Your task to perform on an android device: toggle data saver in the chrome app Image 0: 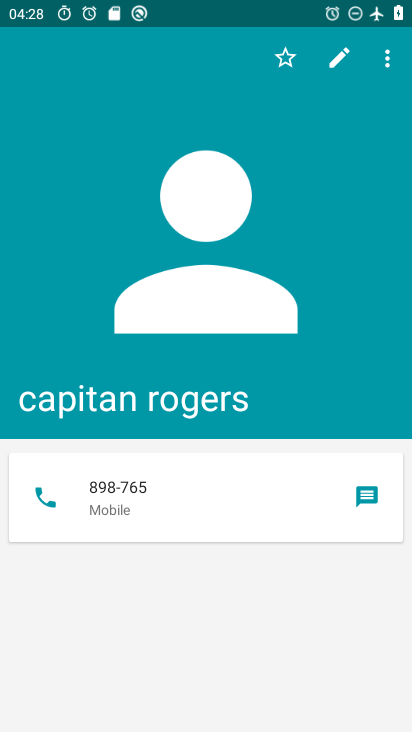
Step 0: press home button
Your task to perform on an android device: toggle data saver in the chrome app Image 1: 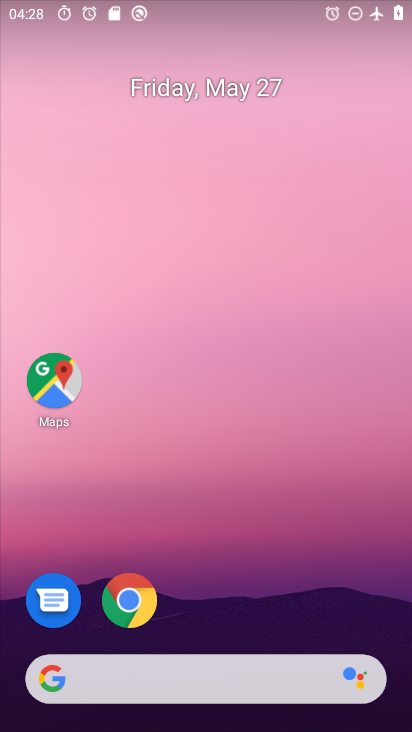
Step 1: click (131, 602)
Your task to perform on an android device: toggle data saver in the chrome app Image 2: 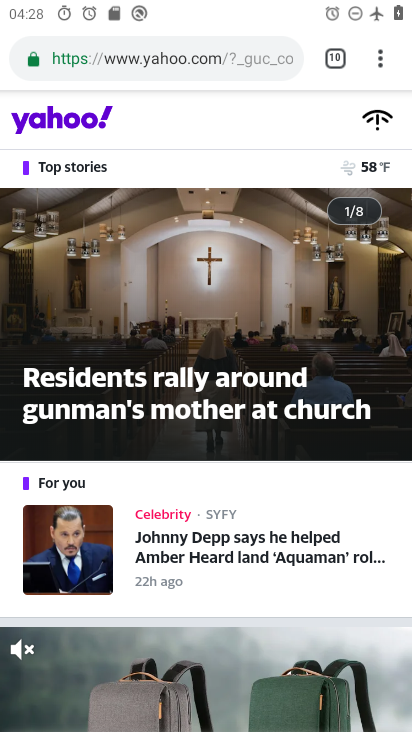
Step 2: click (377, 67)
Your task to perform on an android device: toggle data saver in the chrome app Image 3: 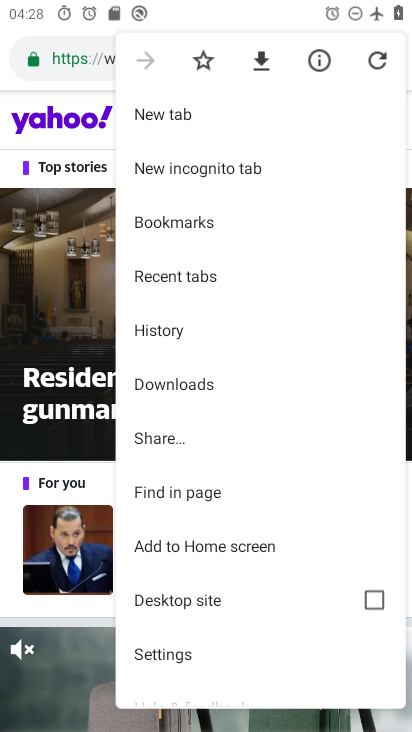
Step 3: click (164, 652)
Your task to perform on an android device: toggle data saver in the chrome app Image 4: 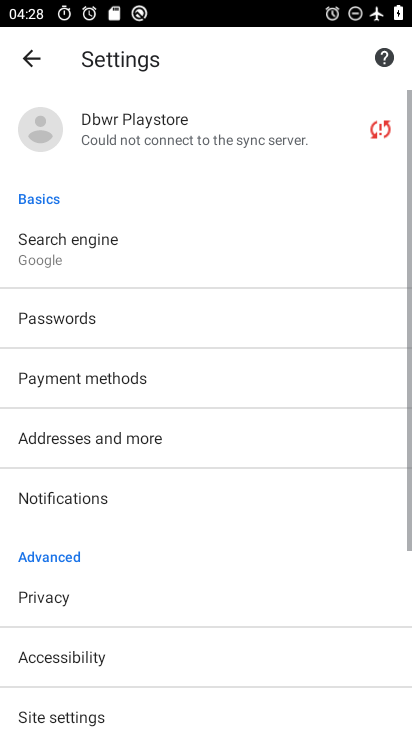
Step 4: drag from (108, 658) to (121, 288)
Your task to perform on an android device: toggle data saver in the chrome app Image 5: 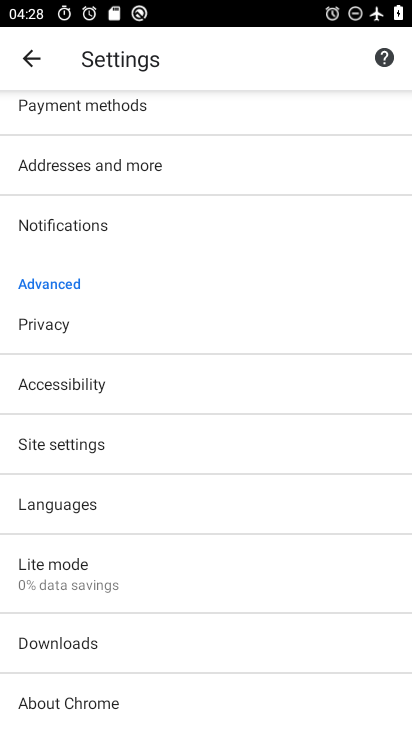
Step 5: click (67, 569)
Your task to perform on an android device: toggle data saver in the chrome app Image 6: 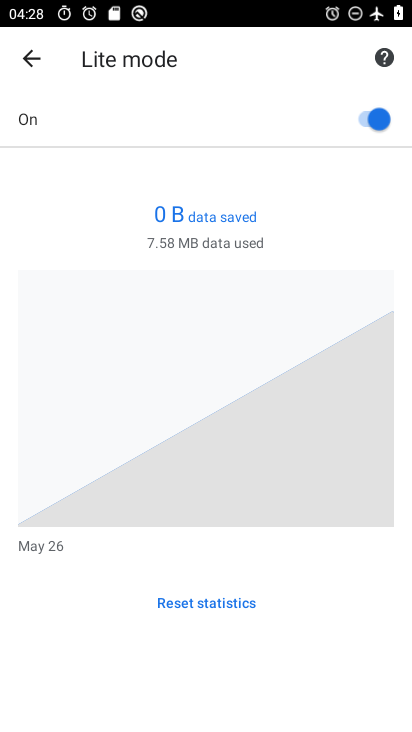
Step 6: click (364, 120)
Your task to perform on an android device: toggle data saver in the chrome app Image 7: 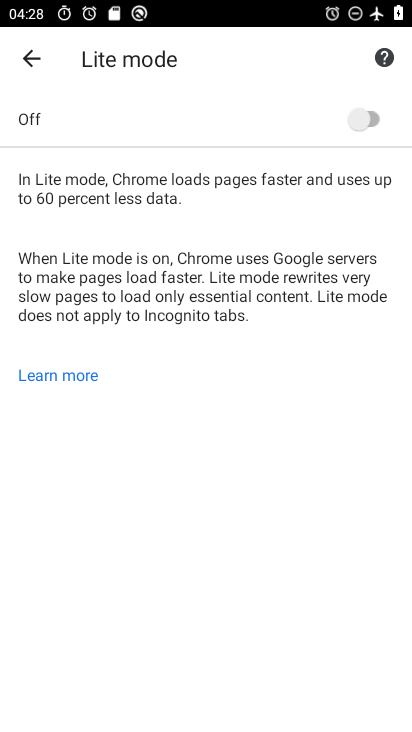
Step 7: task complete